Your task to perform on an android device: refresh tabs in the chrome app Image 0: 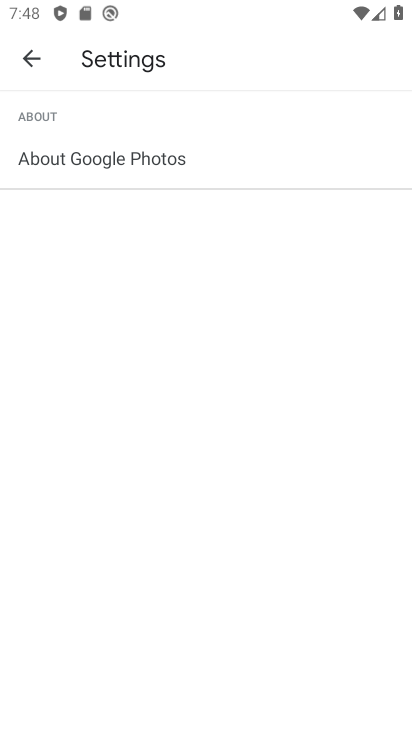
Step 0: press home button
Your task to perform on an android device: refresh tabs in the chrome app Image 1: 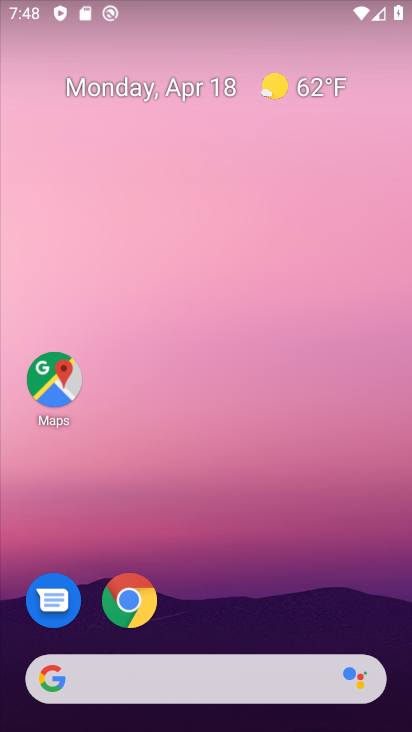
Step 1: click (133, 589)
Your task to perform on an android device: refresh tabs in the chrome app Image 2: 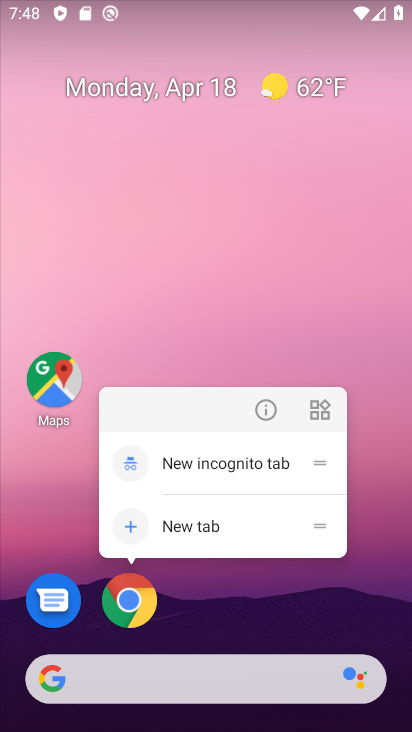
Step 2: click (139, 578)
Your task to perform on an android device: refresh tabs in the chrome app Image 3: 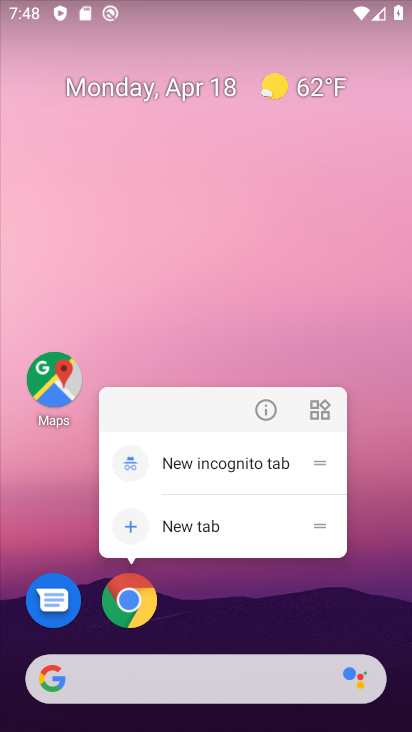
Step 3: click (136, 596)
Your task to perform on an android device: refresh tabs in the chrome app Image 4: 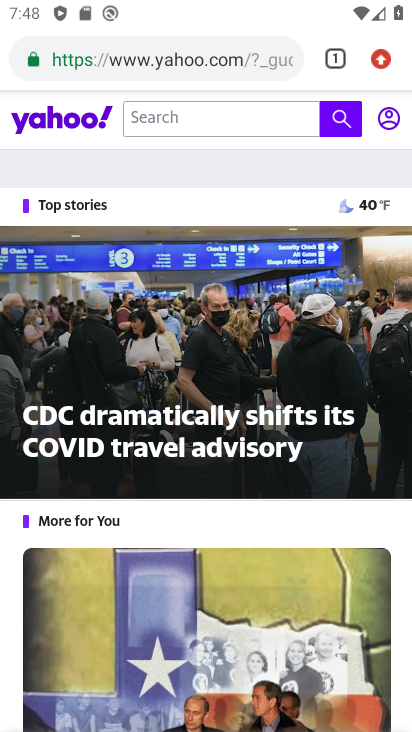
Step 4: click (379, 51)
Your task to perform on an android device: refresh tabs in the chrome app Image 5: 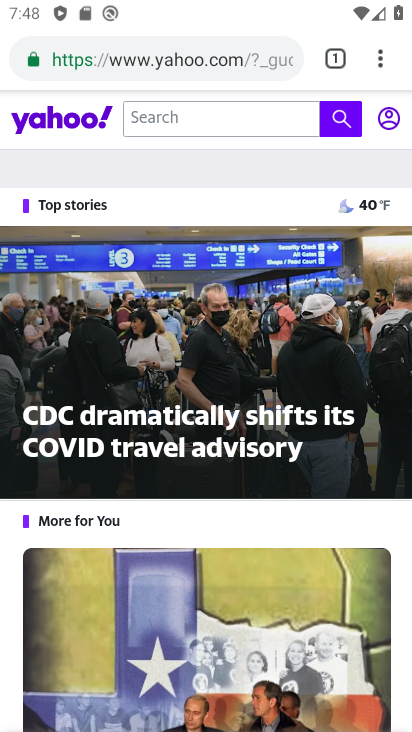
Step 5: click (379, 51)
Your task to perform on an android device: refresh tabs in the chrome app Image 6: 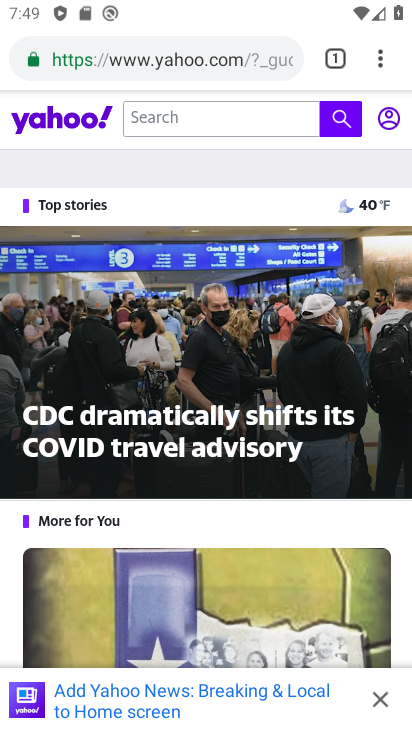
Step 6: click (377, 63)
Your task to perform on an android device: refresh tabs in the chrome app Image 7: 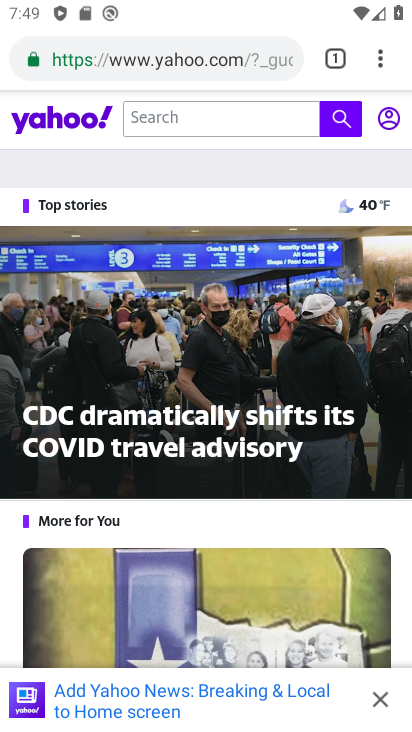
Step 7: click (368, 64)
Your task to perform on an android device: refresh tabs in the chrome app Image 8: 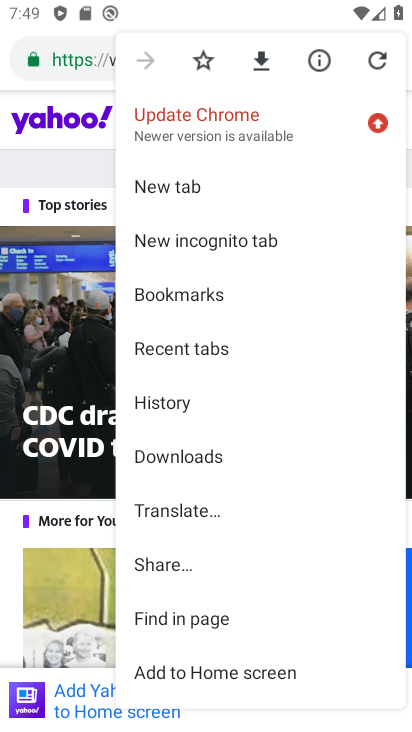
Step 8: click (378, 53)
Your task to perform on an android device: refresh tabs in the chrome app Image 9: 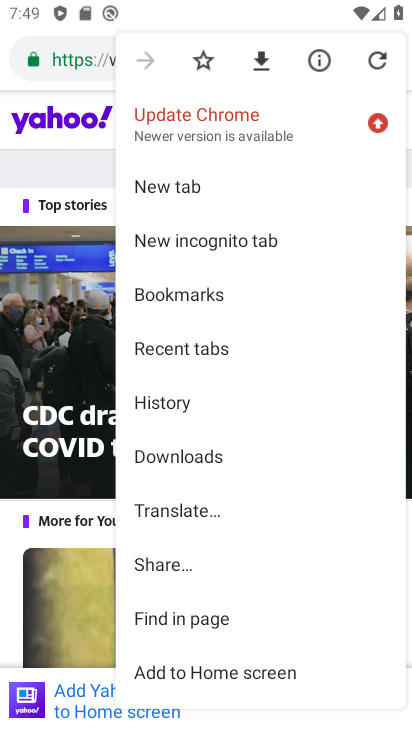
Step 9: click (366, 56)
Your task to perform on an android device: refresh tabs in the chrome app Image 10: 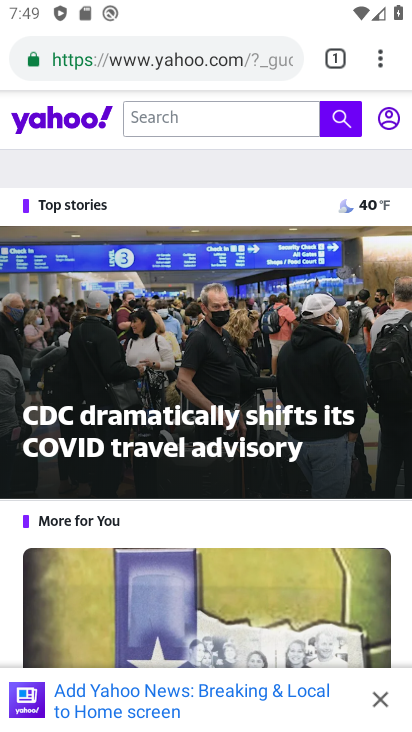
Step 10: task complete